Your task to perform on an android device: toggle data saver in the chrome app Image 0: 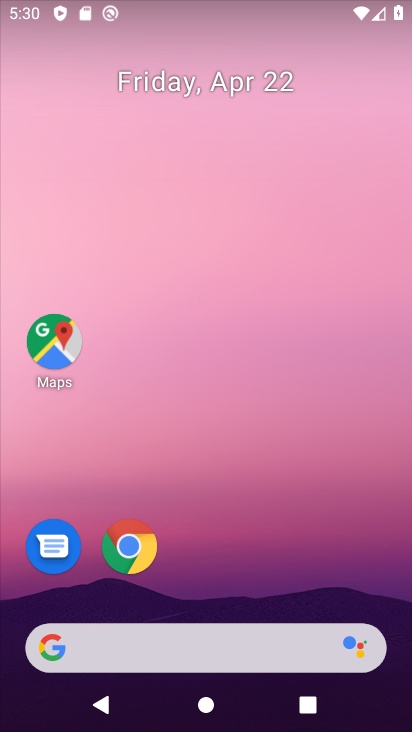
Step 0: click (139, 556)
Your task to perform on an android device: toggle data saver in the chrome app Image 1: 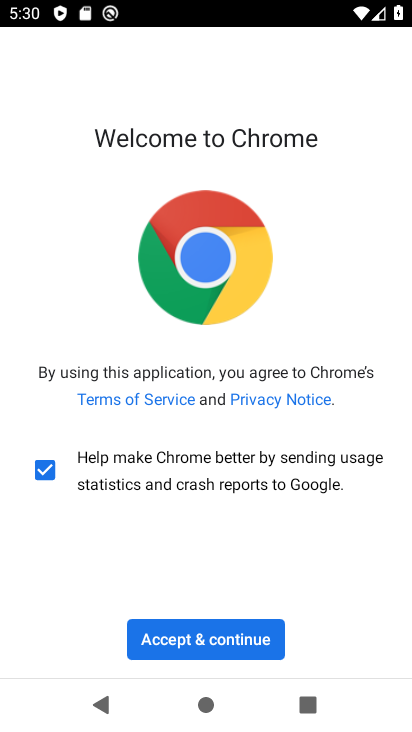
Step 1: click (177, 645)
Your task to perform on an android device: toggle data saver in the chrome app Image 2: 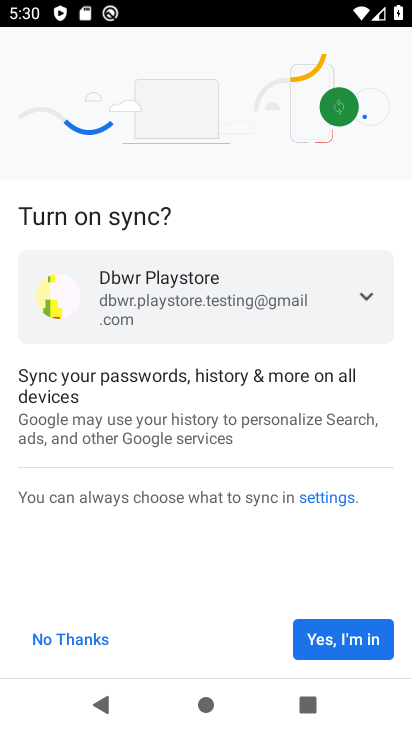
Step 2: click (318, 633)
Your task to perform on an android device: toggle data saver in the chrome app Image 3: 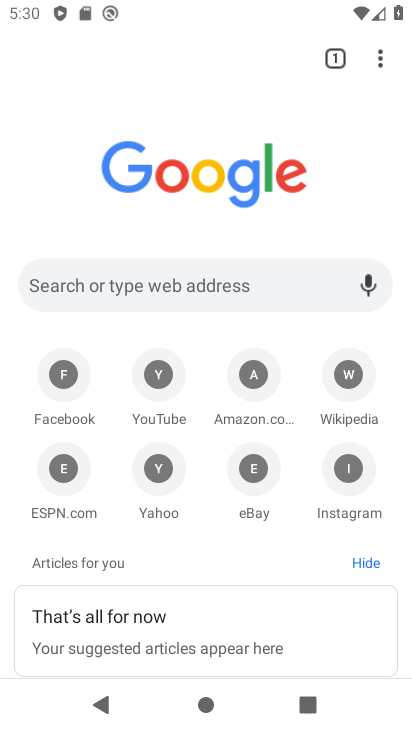
Step 3: click (378, 58)
Your task to perform on an android device: toggle data saver in the chrome app Image 4: 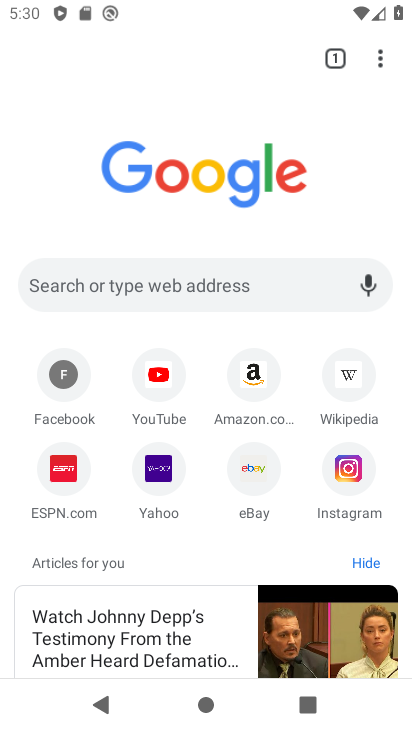
Step 4: click (378, 56)
Your task to perform on an android device: toggle data saver in the chrome app Image 5: 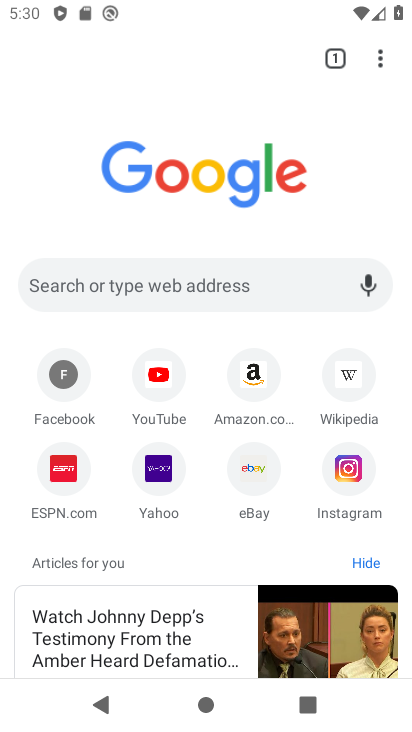
Step 5: click (382, 56)
Your task to perform on an android device: toggle data saver in the chrome app Image 6: 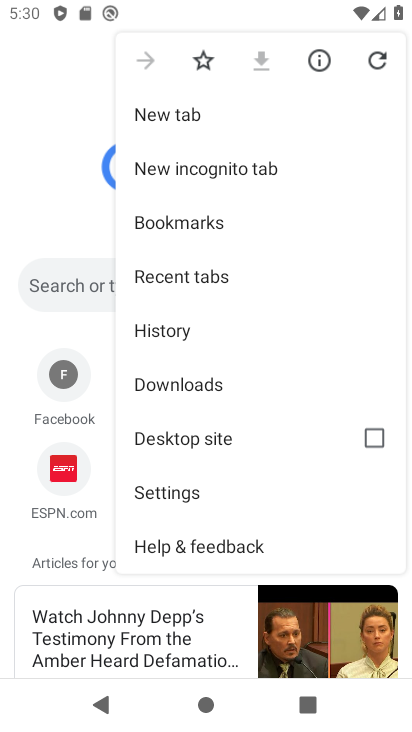
Step 6: click (173, 492)
Your task to perform on an android device: toggle data saver in the chrome app Image 7: 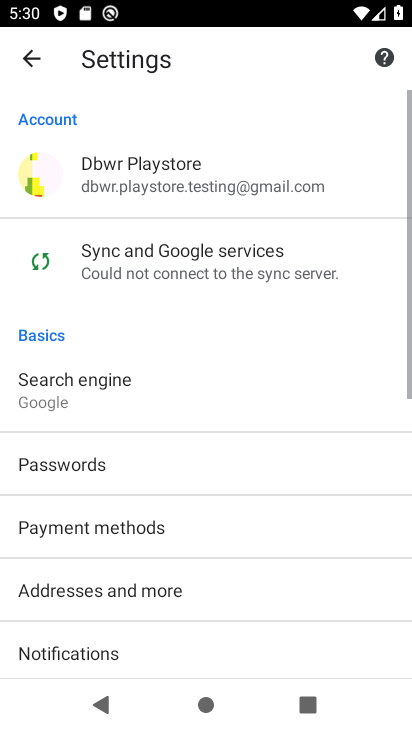
Step 7: drag from (149, 586) to (164, 298)
Your task to perform on an android device: toggle data saver in the chrome app Image 8: 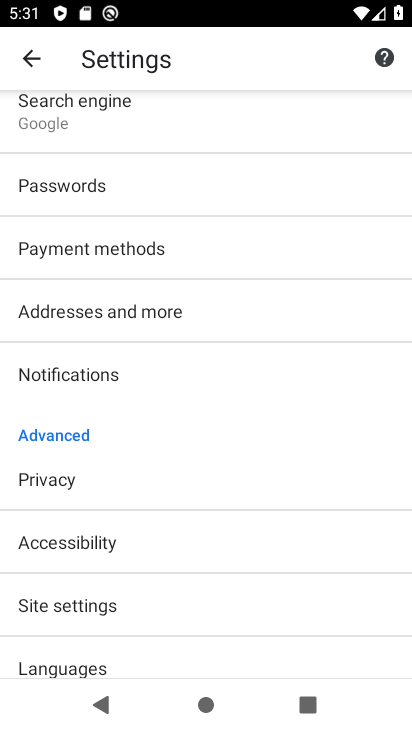
Step 8: drag from (82, 637) to (155, 339)
Your task to perform on an android device: toggle data saver in the chrome app Image 9: 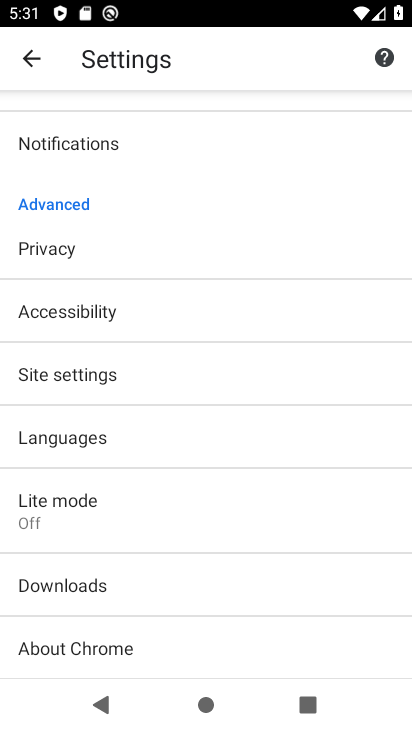
Step 9: click (78, 510)
Your task to perform on an android device: toggle data saver in the chrome app Image 10: 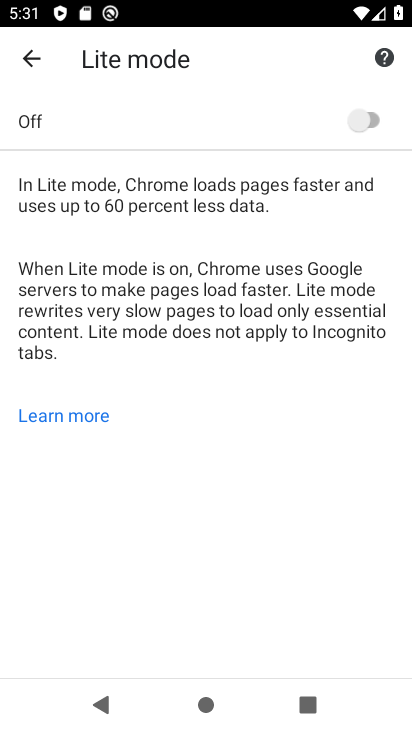
Step 10: click (371, 113)
Your task to perform on an android device: toggle data saver in the chrome app Image 11: 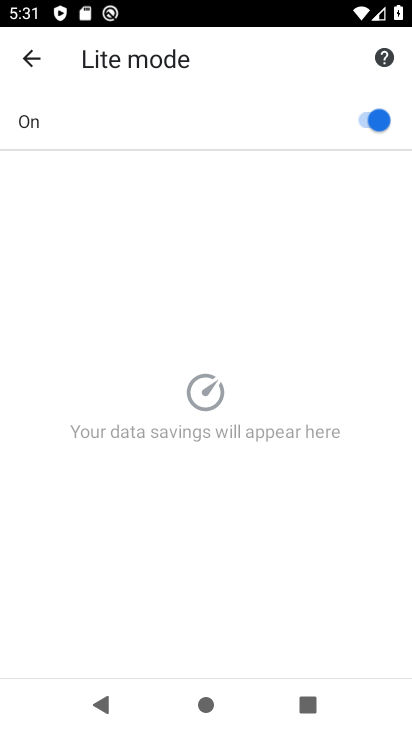
Step 11: task complete